Your task to perform on an android device: uninstall "Yahoo Mail" Image 0: 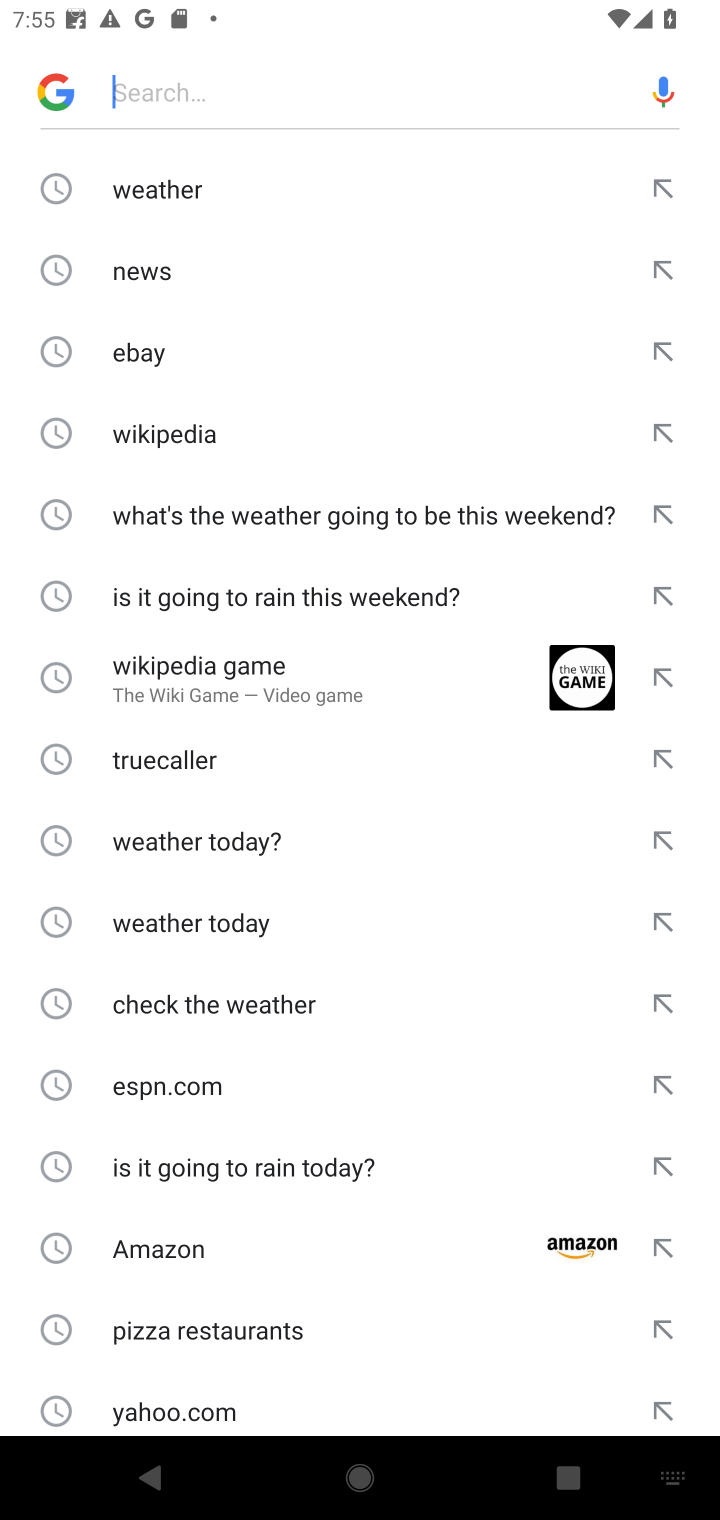
Step 0: press home button
Your task to perform on an android device: uninstall "Yahoo Mail" Image 1: 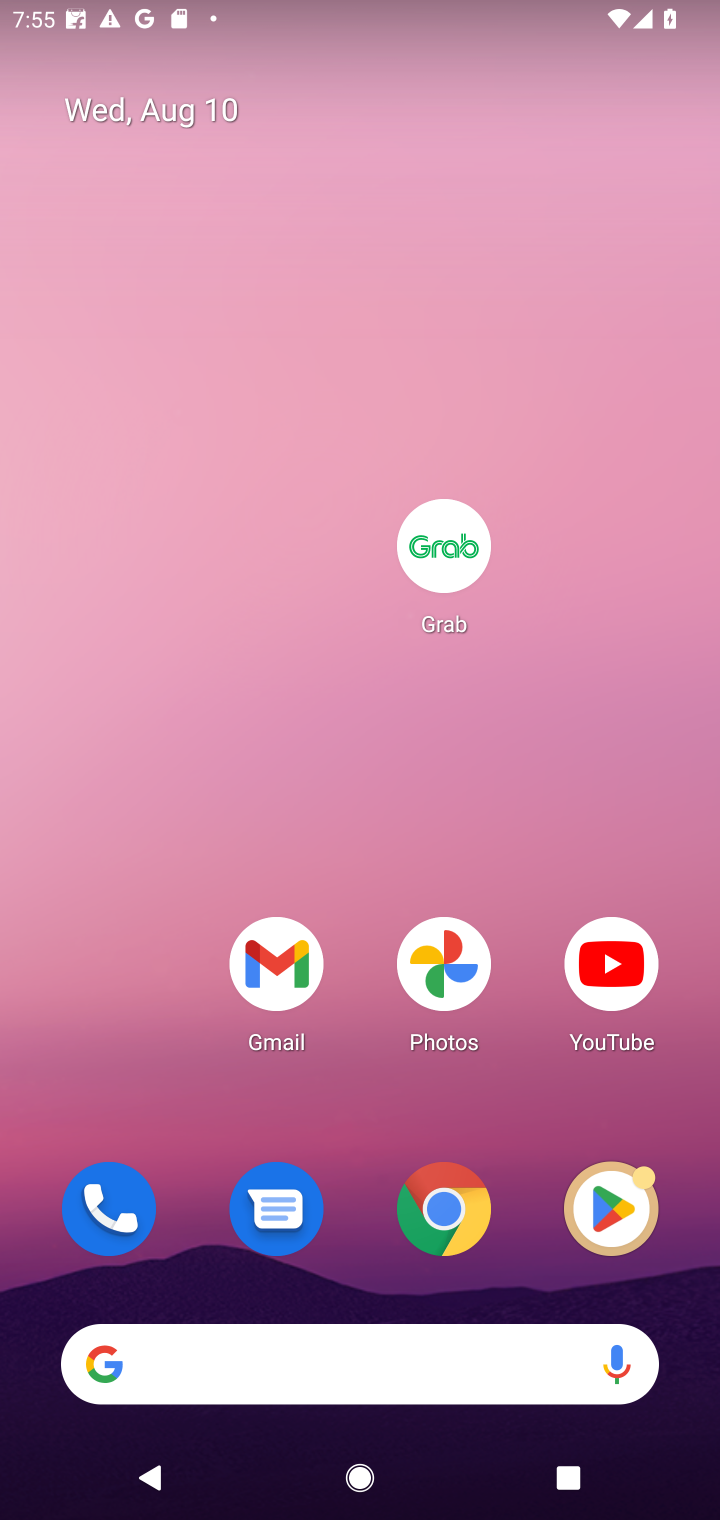
Step 1: drag from (390, 1283) to (607, 108)
Your task to perform on an android device: uninstall "Yahoo Mail" Image 2: 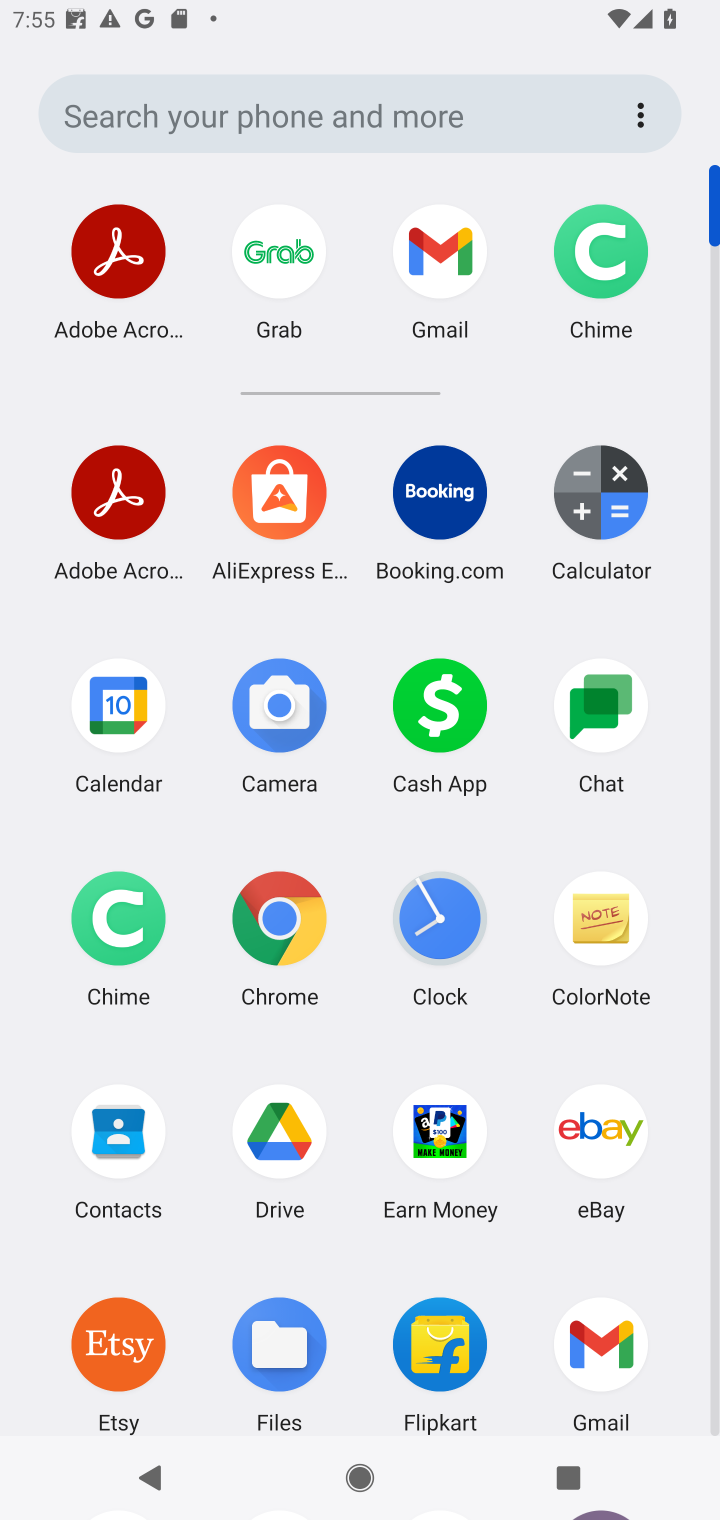
Step 2: click (357, 145)
Your task to perform on an android device: uninstall "Yahoo Mail" Image 3: 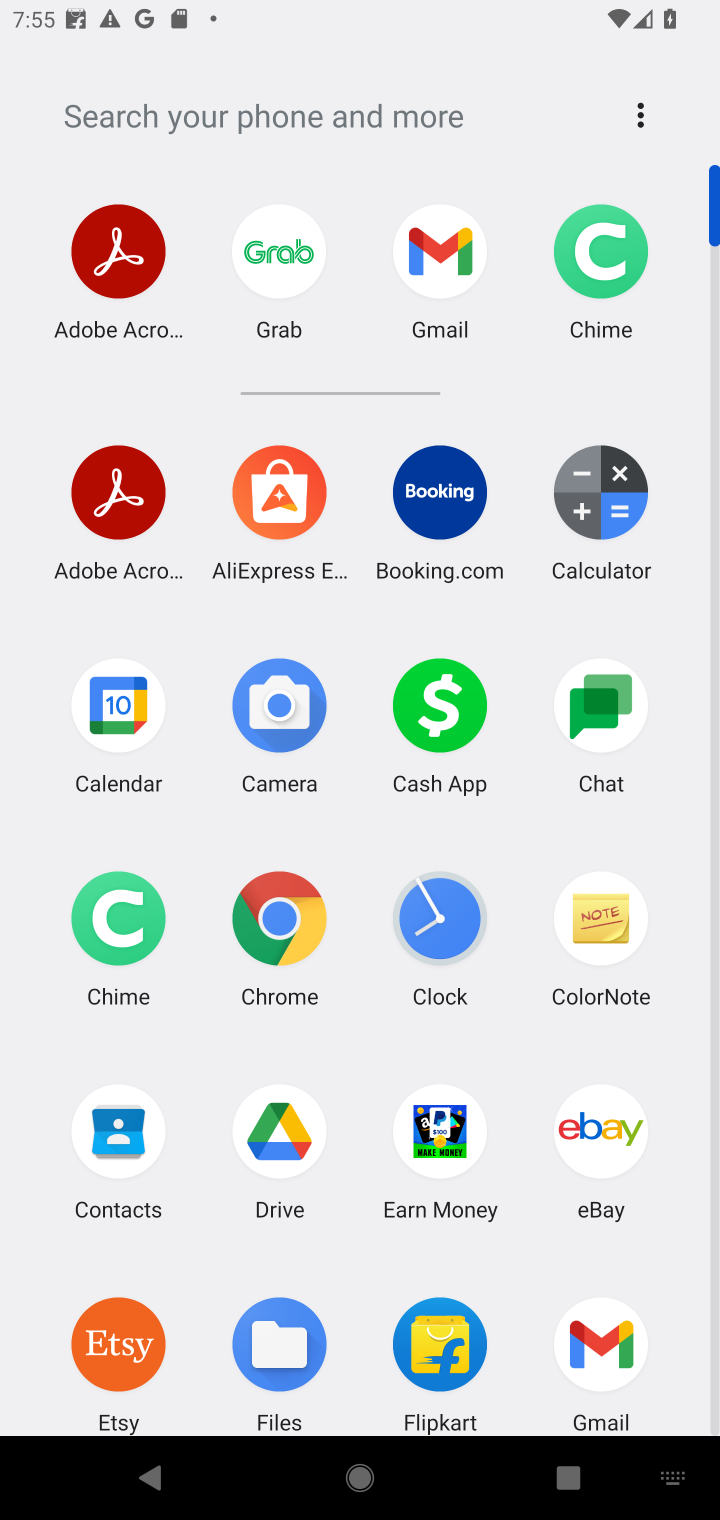
Step 3: press home button
Your task to perform on an android device: uninstall "Yahoo Mail" Image 4: 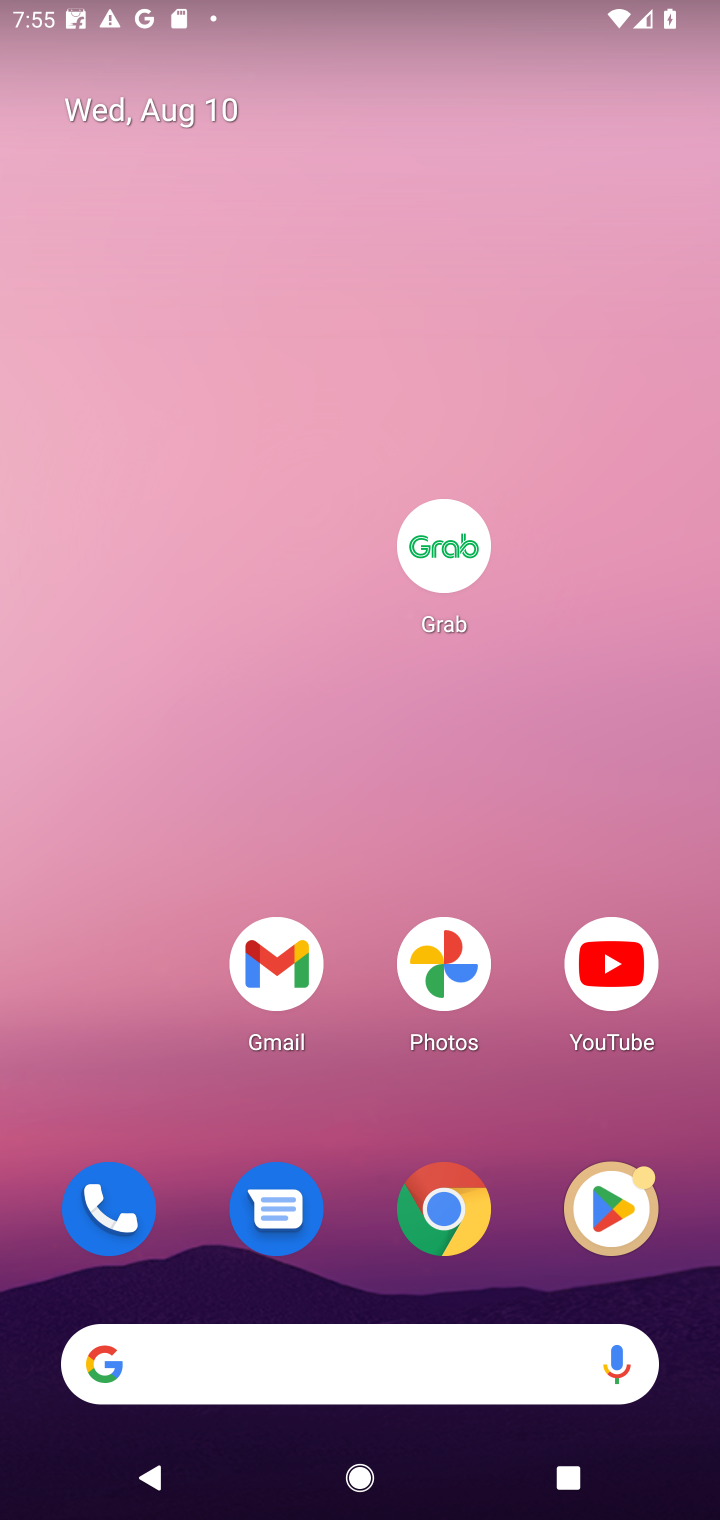
Step 4: click (610, 1239)
Your task to perform on an android device: uninstall "Yahoo Mail" Image 5: 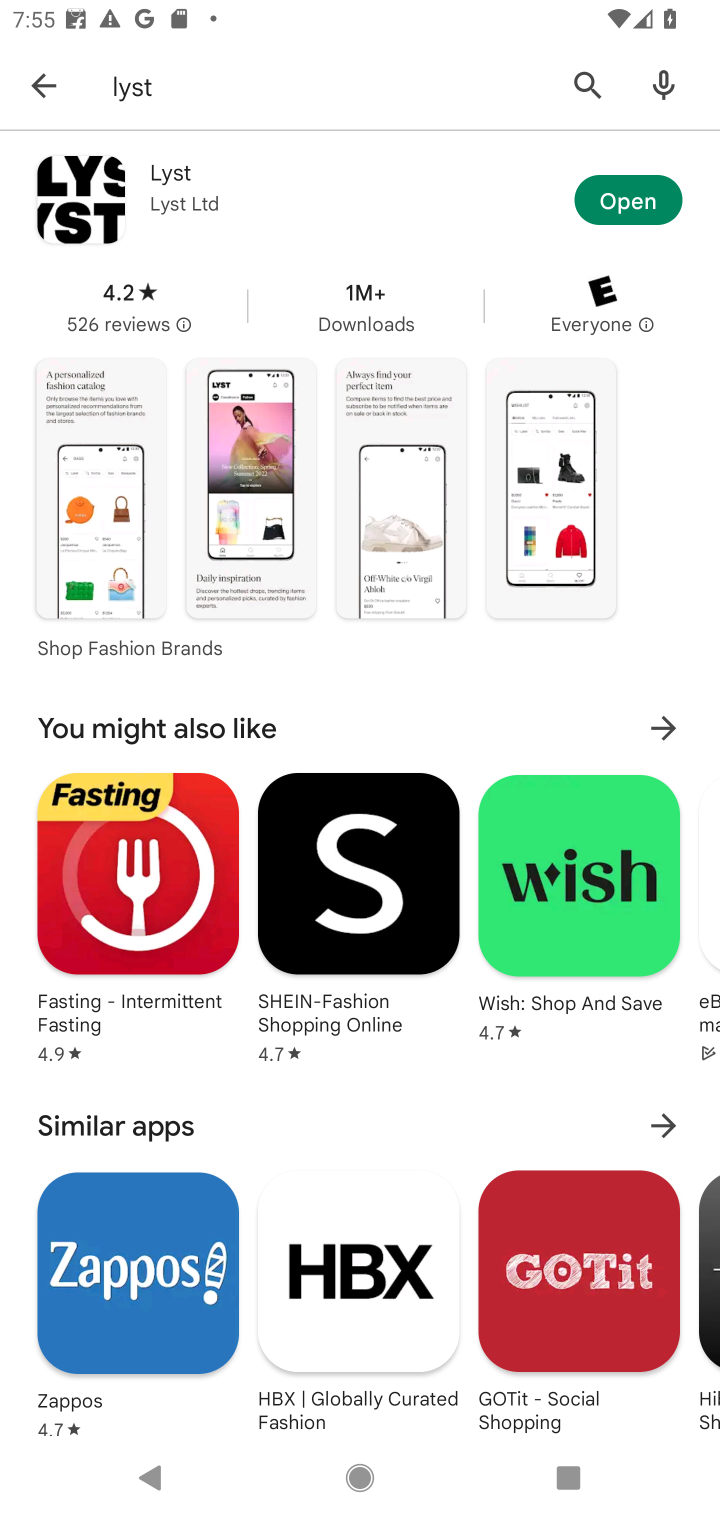
Step 5: click (593, 94)
Your task to perform on an android device: uninstall "Yahoo Mail" Image 6: 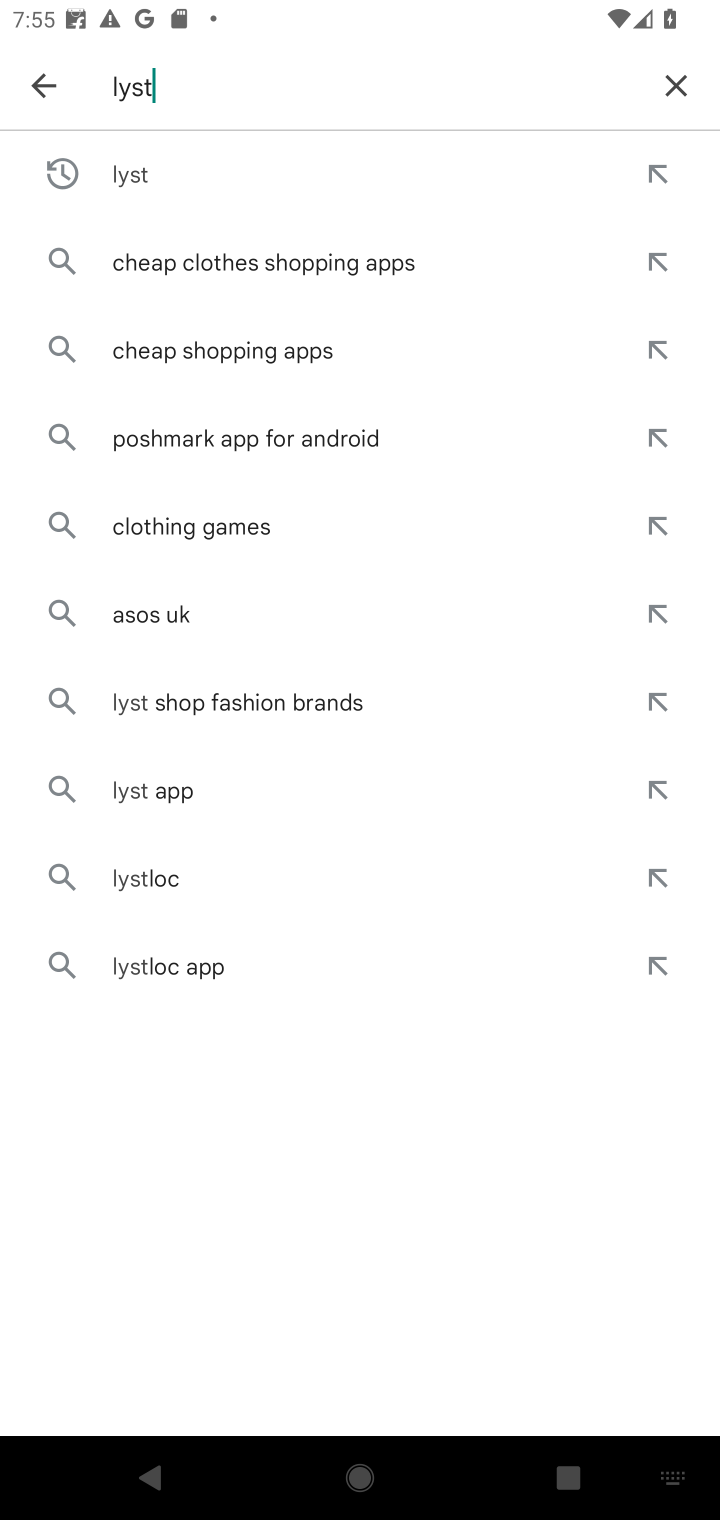
Step 6: click (653, 94)
Your task to perform on an android device: uninstall "Yahoo Mail" Image 7: 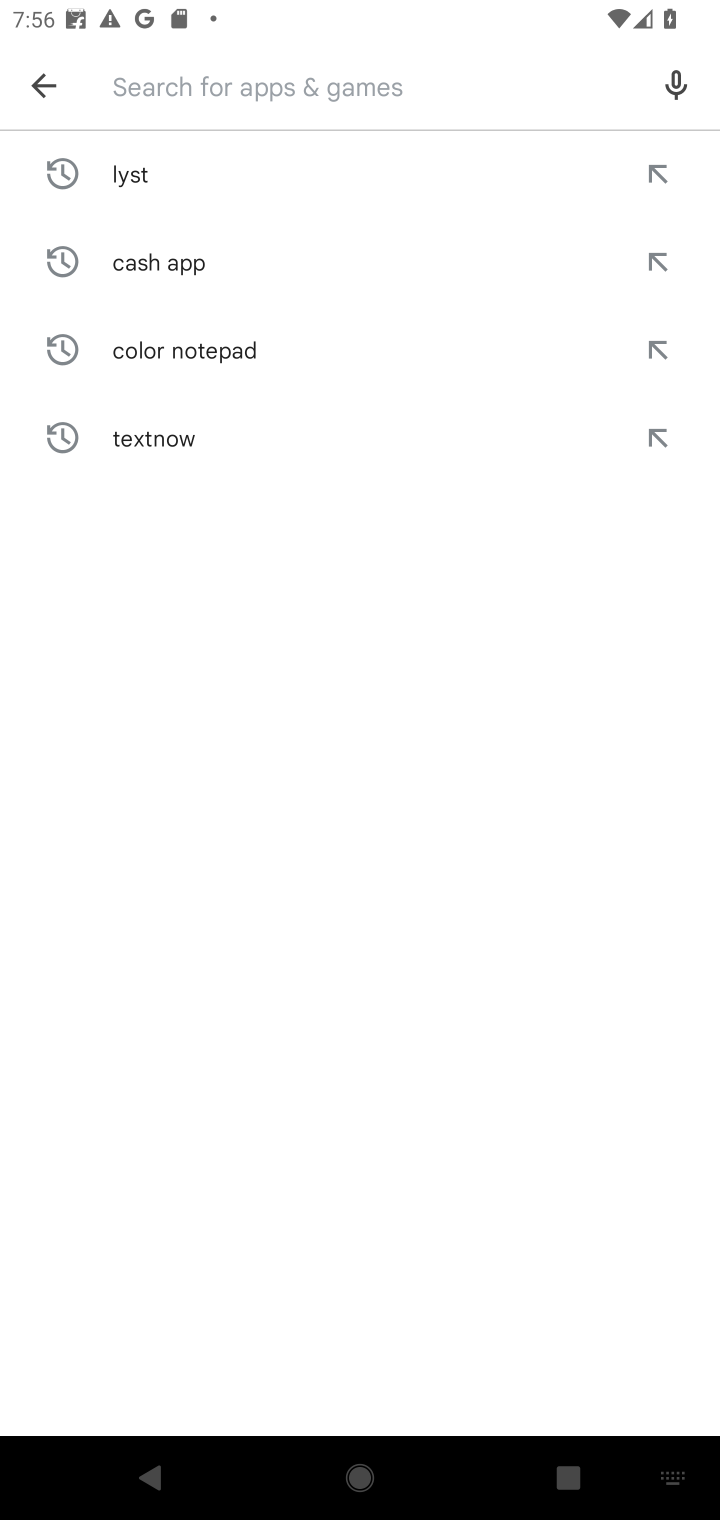
Step 7: type "yahoomail.com"
Your task to perform on an android device: uninstall "Yahoo Mail" Image 8: 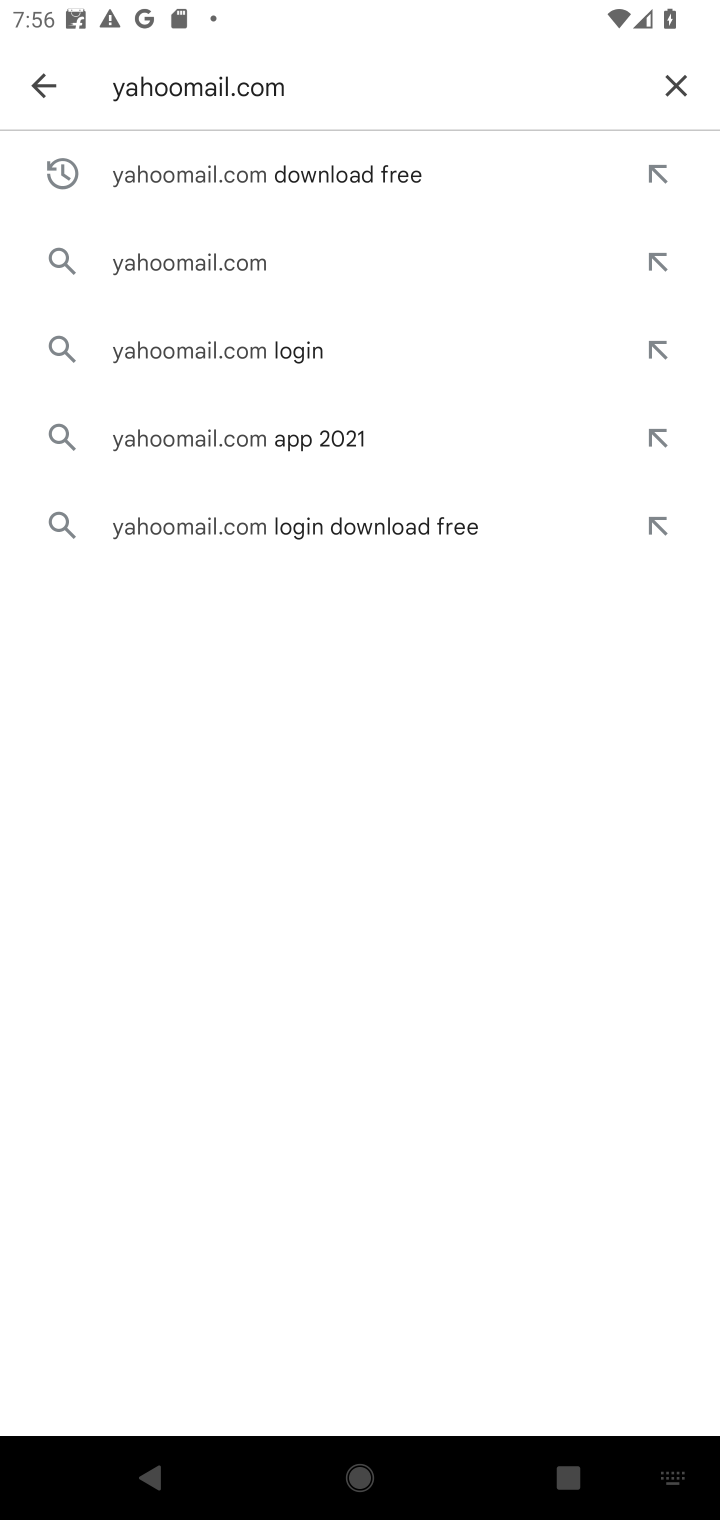
Step 8: click (204, 194)
Your task to perform on an android device: uninstall "Yahoo Mail" Image 9: 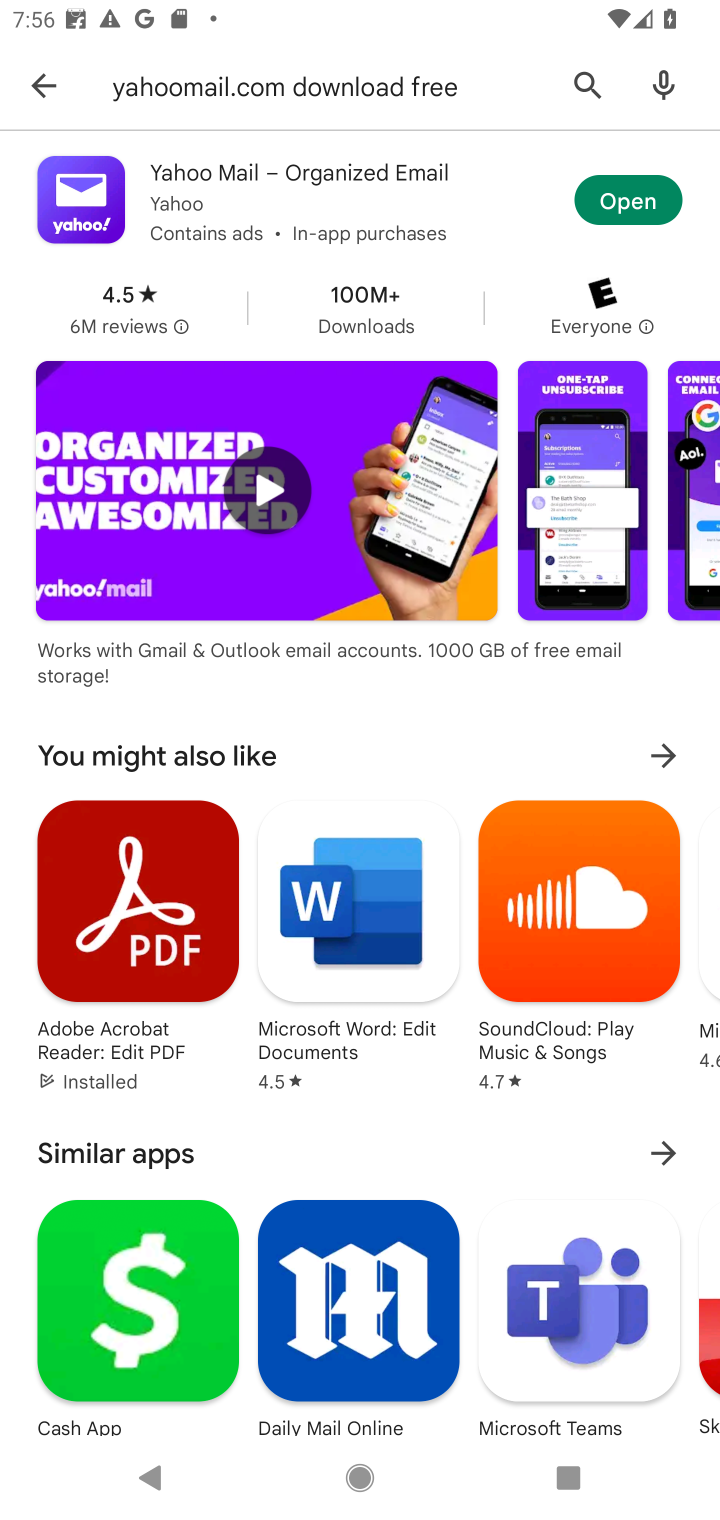
Step 9: click (588, 188)
Your task to perform on an android device: uninstall "Yahoo Mail" Image 10: 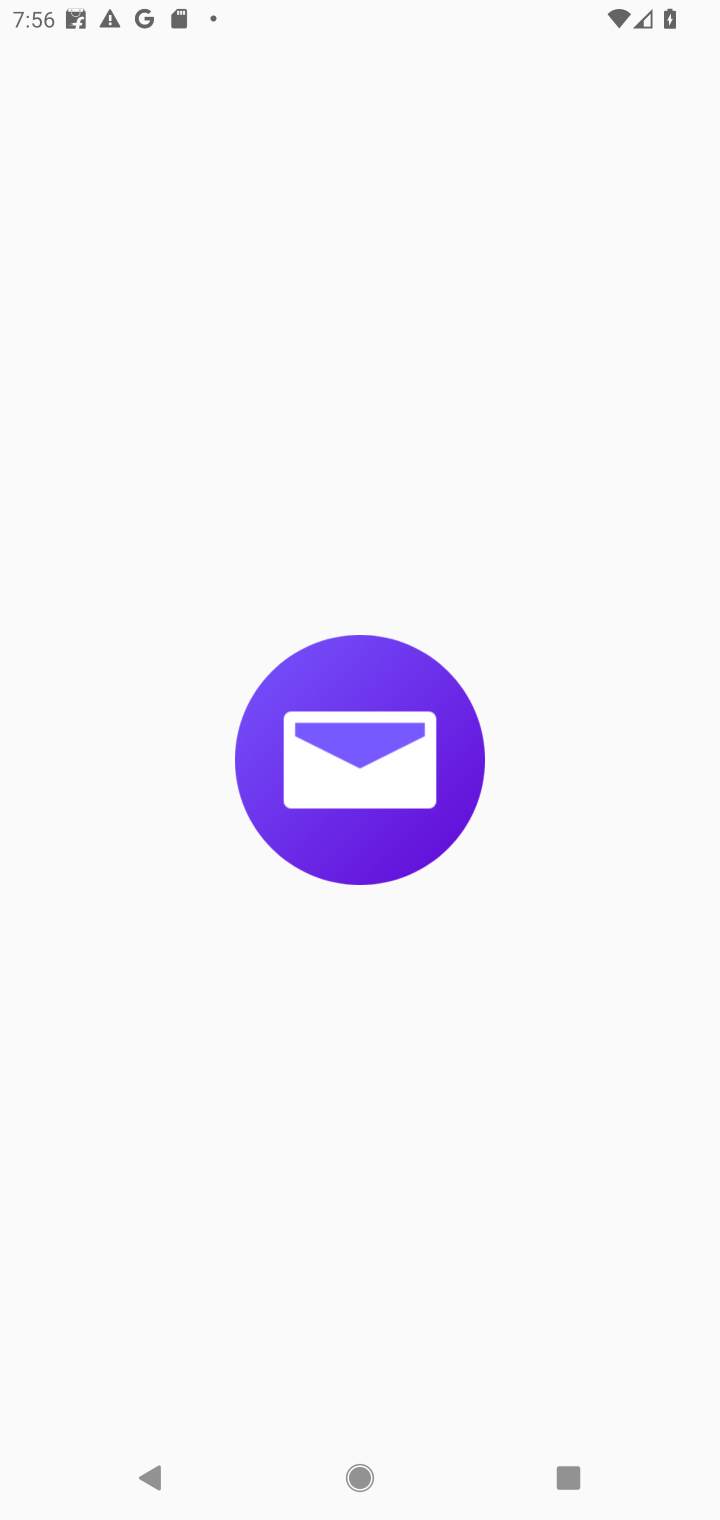
Step 10: task complete